Your task to perform on an android device: Open Reddit.com Image 0: 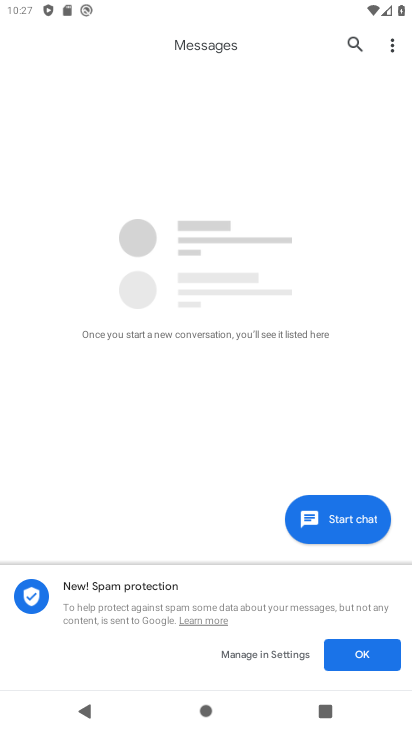
Step 0: press back button
Your task to perform on an android device: Open Reddit.com Image 1: 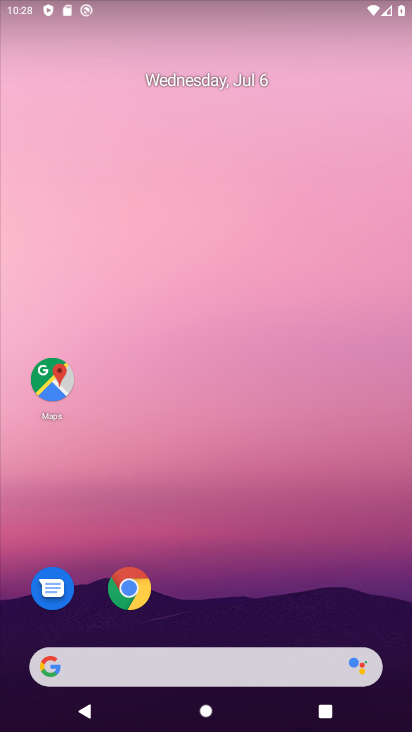
Step 1: press home button
Your task to perform on an android device: Open Reddit.com Image 2: 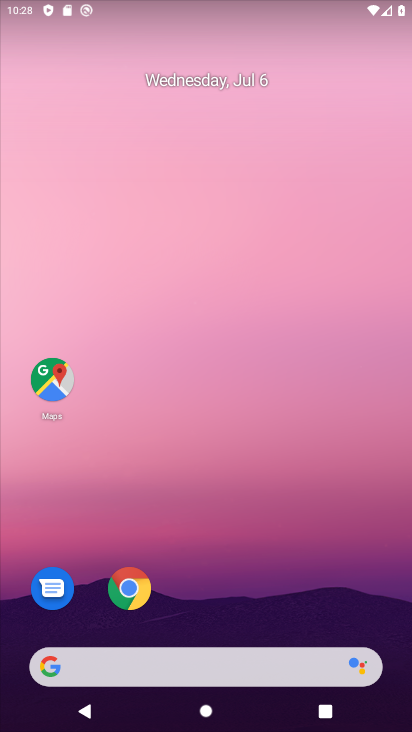
Step 2: drag from (218, 259) to (181, 232)
Your task to perform on an android device: Open Reddit.com Image 3: 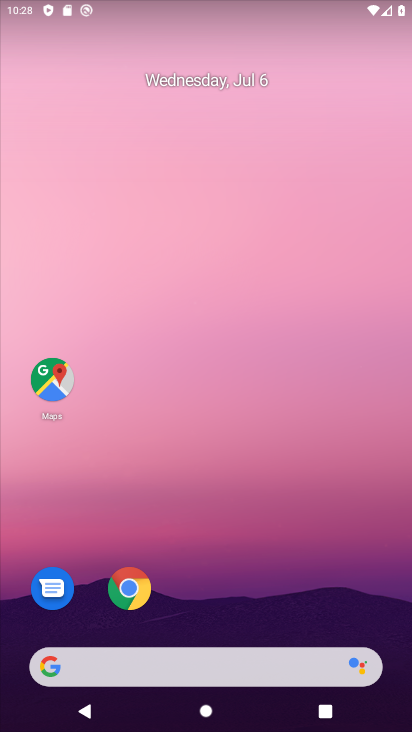
Step 3: drag from (247, 689) to (223, 285)
Your task to perform on an android device: Open Reddit.com Image 4: 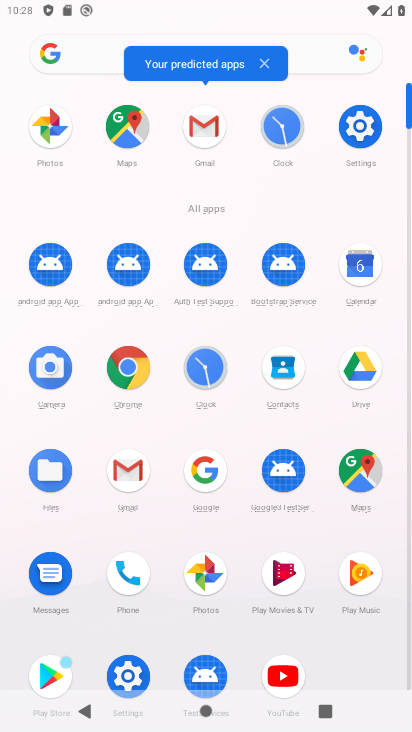
Step 4: drag from (314, 617) to (179, 227)
Your task to perform on an android device: Open Reddit.com Image 5: 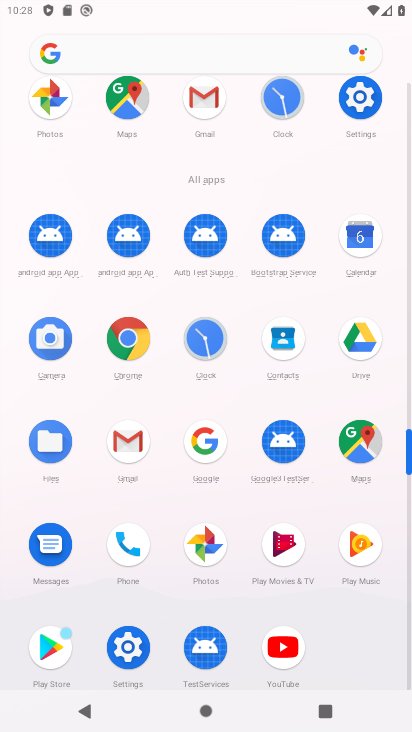
Step 5: drag from (129, 143) to (111, 95)
Your task to perform on an android device: Open Reddit.com Image 6: 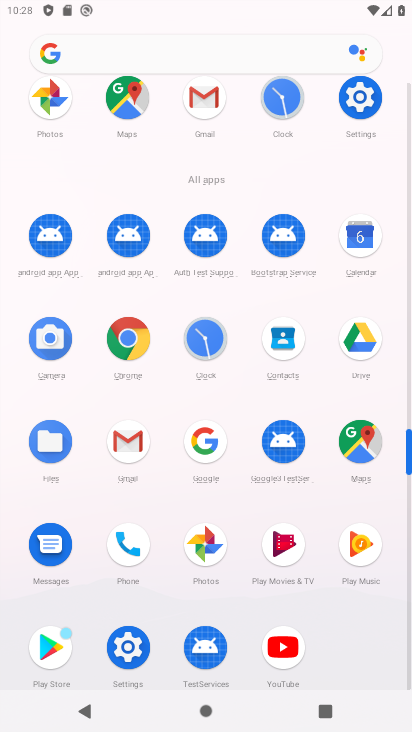
Step 6: drag from (225, 544) to (131, 187)
Your task to perform on an android device: Open Reddit.com Image 7: 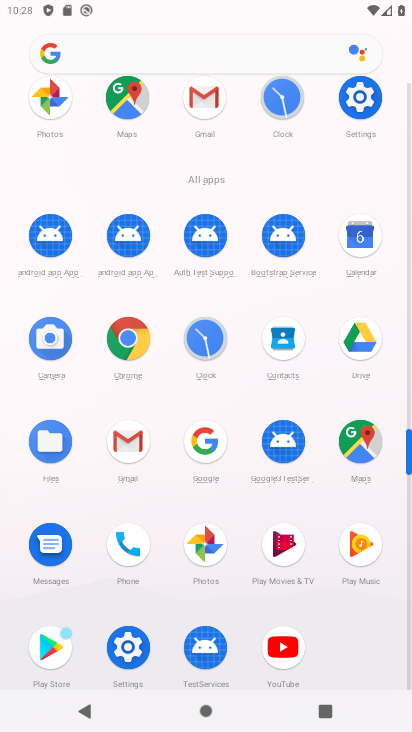
Step 7: drag from (235, 678) to (19, 155)
Your task to perform on an android device: Open Reddit.com Image 8: 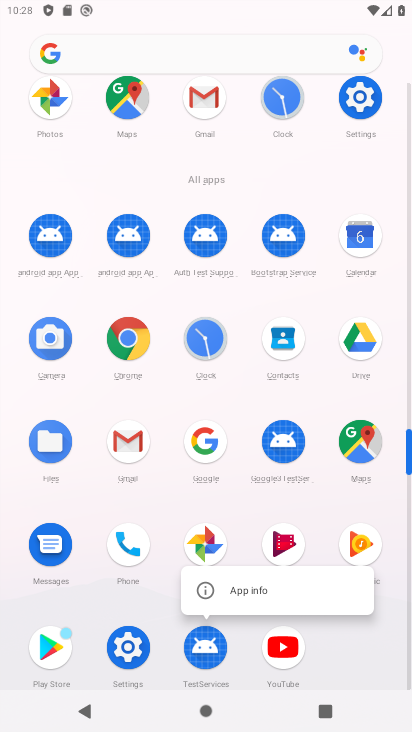
Step 8: drag from (244, 553) to (43, 73)
Your task to perform on an android device: Open Reddit.com Image 9: 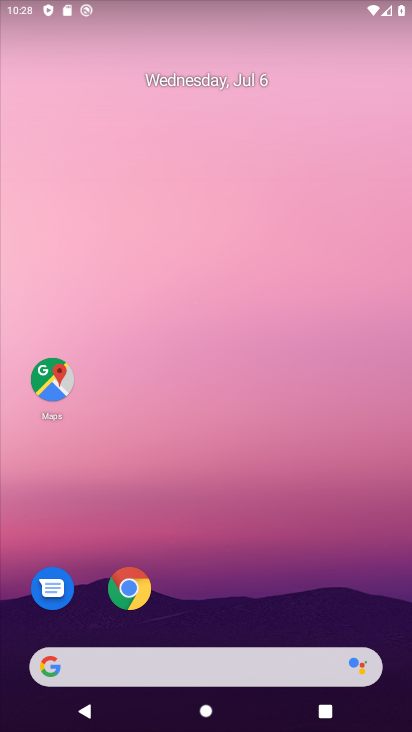
Step 9: click (142, 68)
Your task to perform on an android device: Open Reddit.com Image 10: 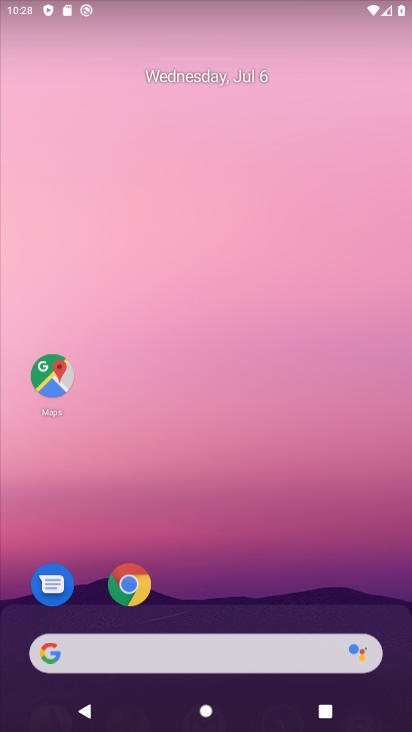
Step 10: drag from (24, 130) to (68, 110)
Your task to perform on an android device: Open Reddit.com Image 11: 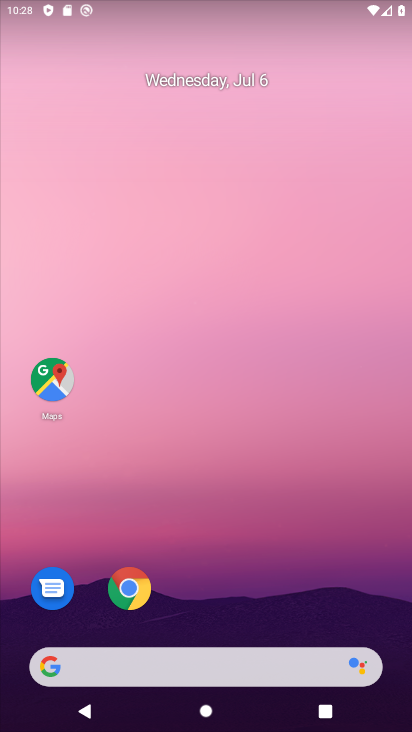
Step 11: drag from (17, 15) to (70, 88)
Your task to perform on an android device: Open Reddit.com Image 12: 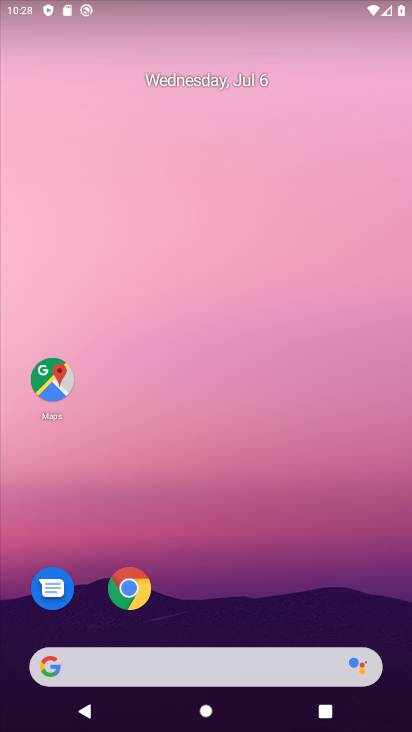
Step 12: drag from (158, 89) to (201, 266)
Your task to perform on an android device: Open Reddit.com Image 13: 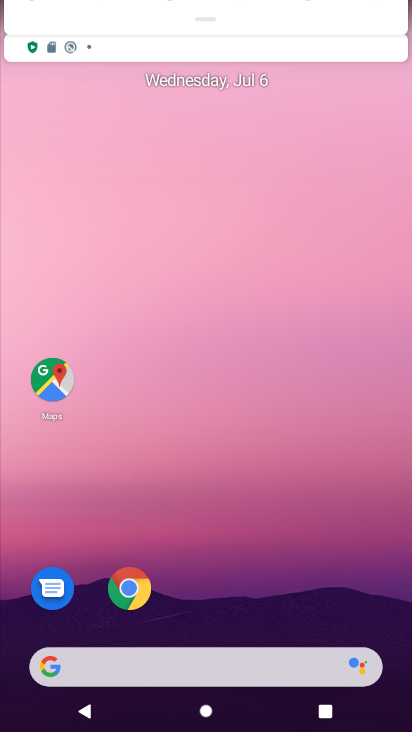
Step 13: click (264, 185)
Your task to perform on an android device: Open Reddit.com Image 14: 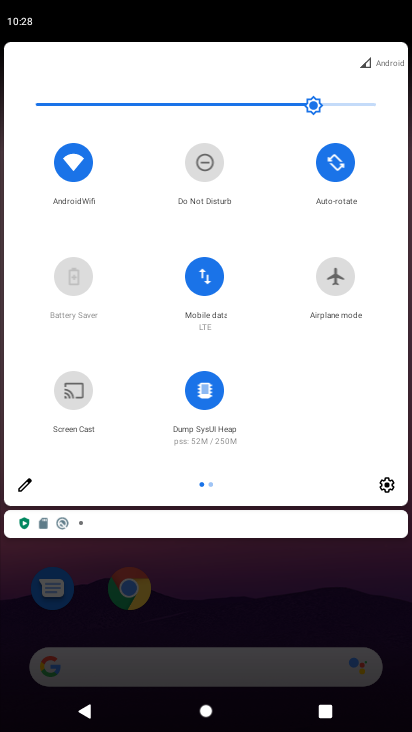
Step 14: click (129, 366)
Your task to perform on an android device: Open Reddit.com Image 15: 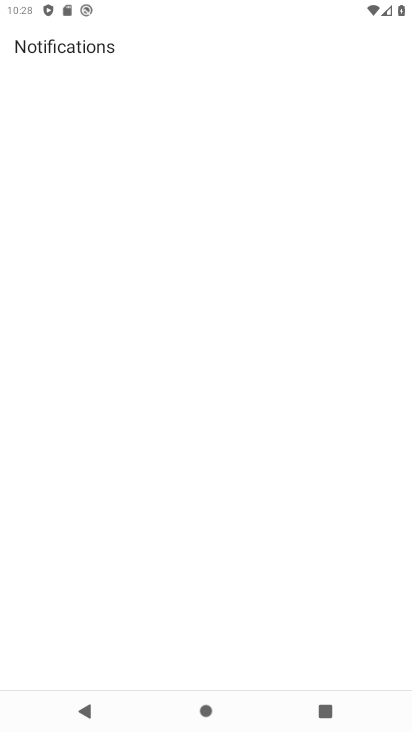
Step 15: click (137, 364)
Your task to perform on an android device: Open Reddit.com Image 16: 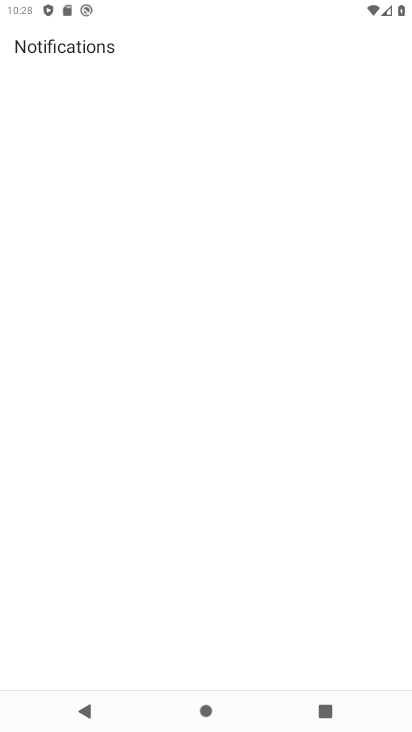
Step 16: click (138, 362)
Your task to perform on an android device: Open Reddit.com Image 17: 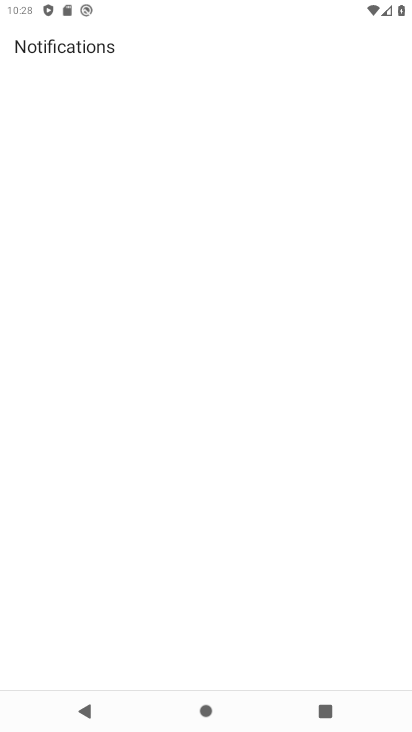
Step 17: drag from (128, 380) to (131, 335)
Your task to perform on an android device: Open Reddit.com Image 18: 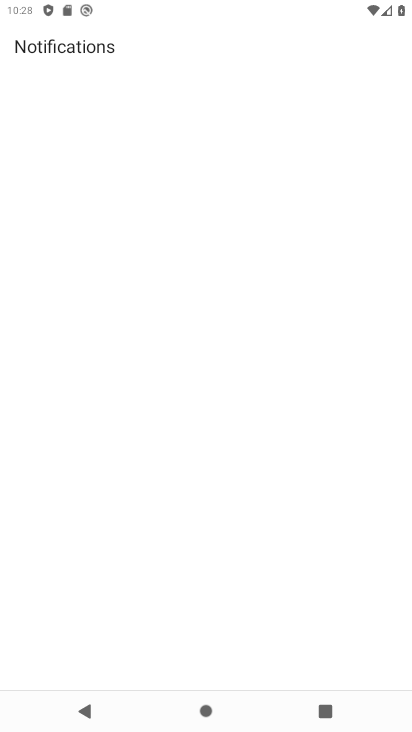
Step 18: click (134, 333)
Your task to perform on an android device: Open Reddit.com Image 19: 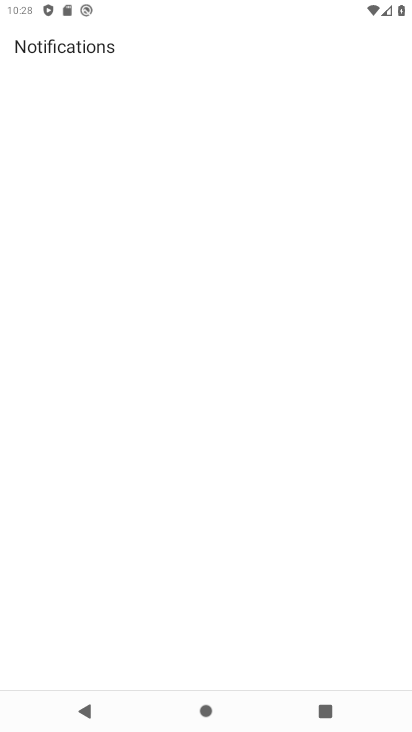
Step 19: click (129, 356)
Your task to perform on an android device: Open Reddit.com Image 20: 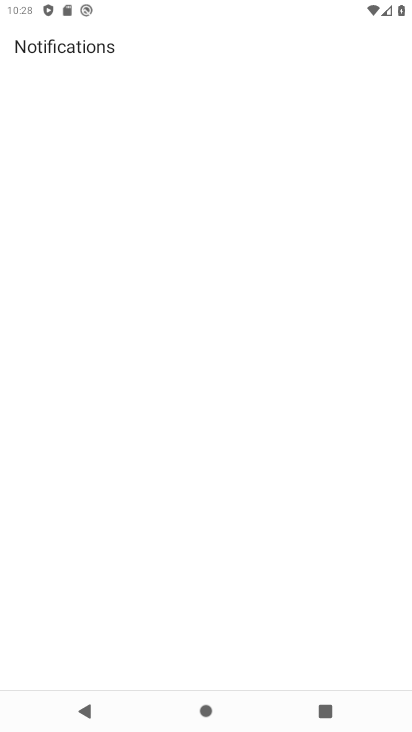
Step 20: click (123, 338)
Your task to perform on an android device: Open Reddit.com Image 21: 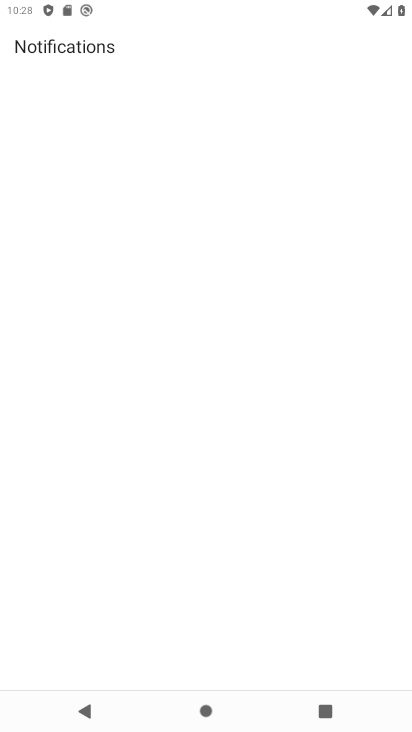
Step 21: task complete